Your task to perform on an android device: Open Youtube and go to the subscriptions tab Image 0: 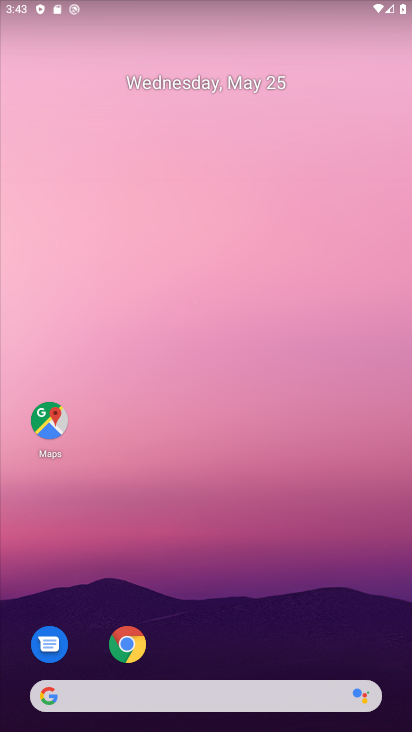
Step 0: drag from (194, 664) to (318, 110)
Your task to perform on an android device: Open Youtube and go to the subscriptions tab Image 1: 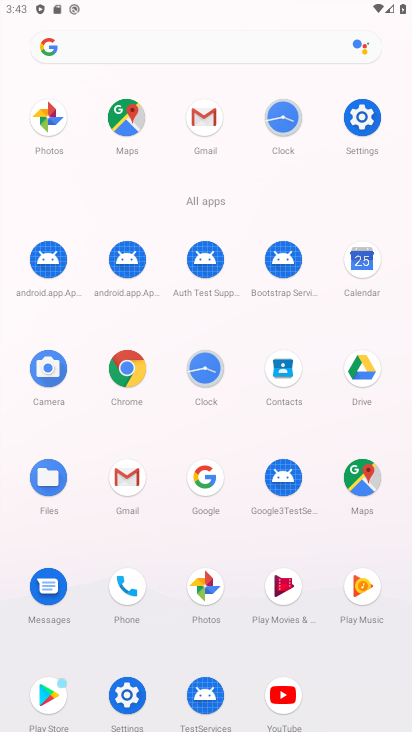
Step 1: click (277, 706)
Your task to perform on an android device: Open Youtube and go to the subscriptions tab Image 2: 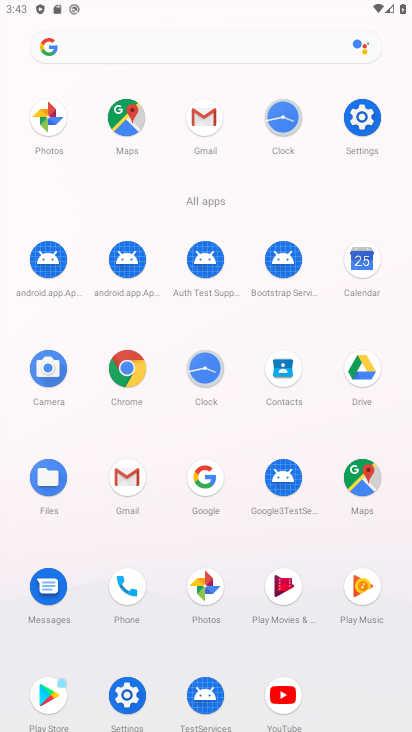
Step 2: click (296, 691)
Your task to perform on an android device: Open Youtube and go to the subscriptions tab Image 3: 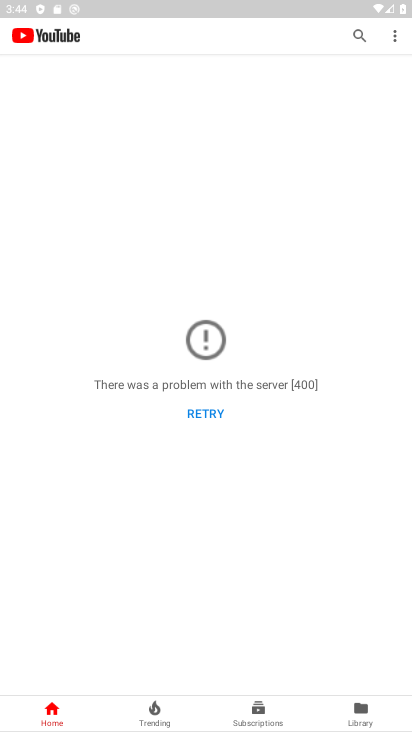
Step 3: click (277, 717)
Your task to perform on an android device: Open Youtube and go to the subscriptions tab Image 4: 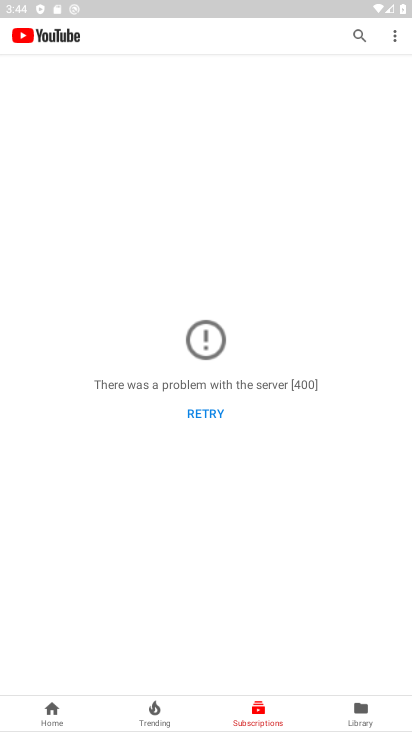
Step 4: task complete